Your task to perform on an android device: Show me popular games on the Play Store Image 0: 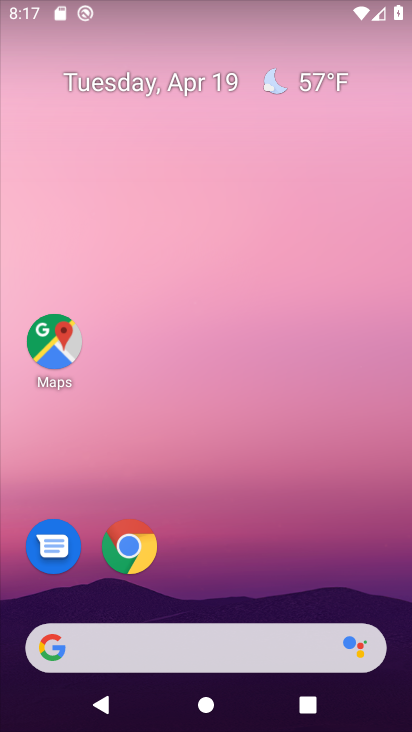
Step 0: drag from (225, 556) to (266, 1)
Your task to perform on an android device: Show me popular games on the Play Store Image 1: 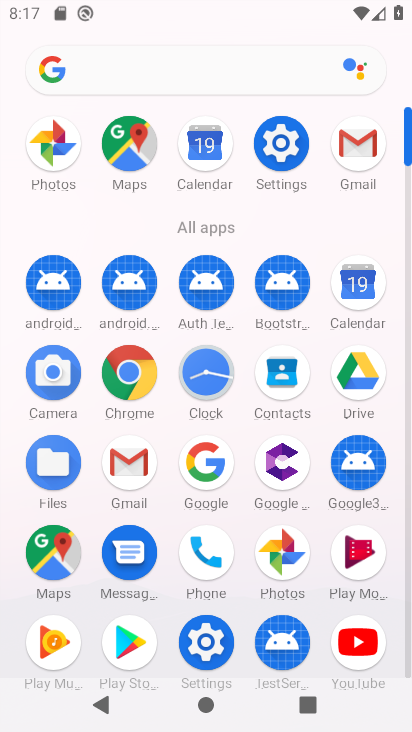
Step 1: click (130, 632)
Your task to perform on an android device: Show me popular games on the Play Store Image 2: 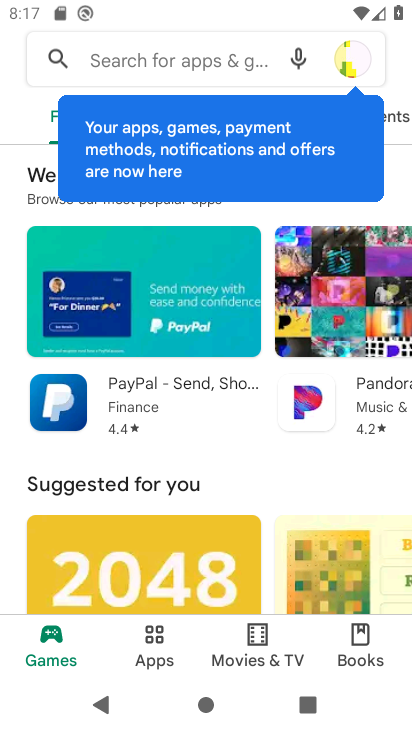
Step 2: drag from (55, 112) to (19, 119)
Your task to perform on an android device: Show me popular games on the Play Store Image 3: 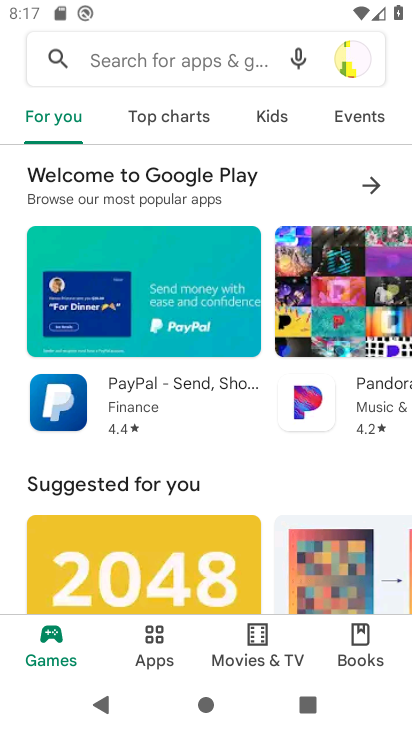
Step 3: click (200, 116)
Your task to perform on an android device: Show me popular games on the Play Store Image 4: 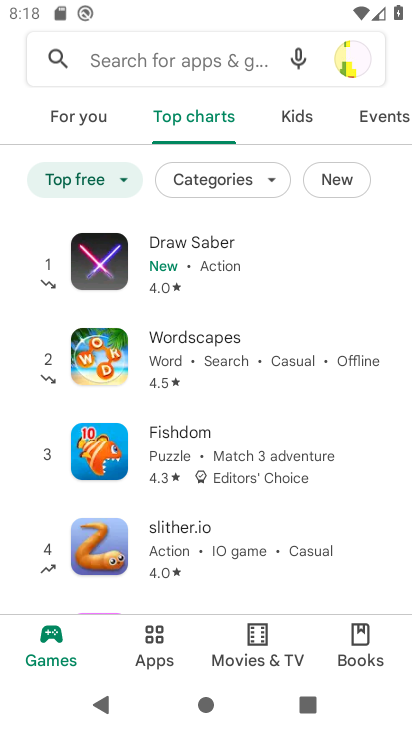
Step 4: task complete